Your task to perform on an android device: Go to Wikipedia Image 0: 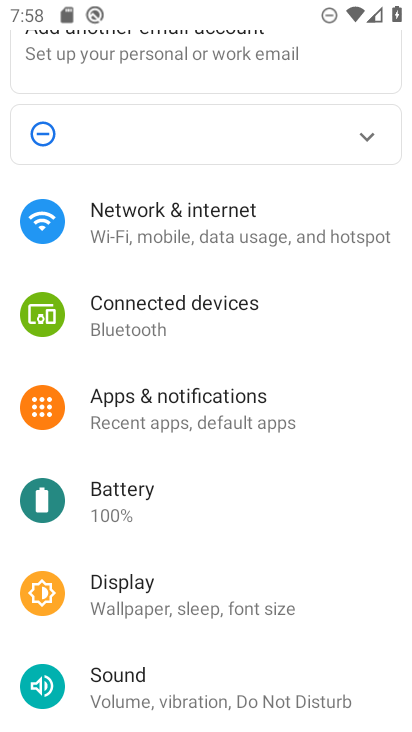
Step 0: press home button
Your task to perform on an android device: Go to Wikipedia Image 1: 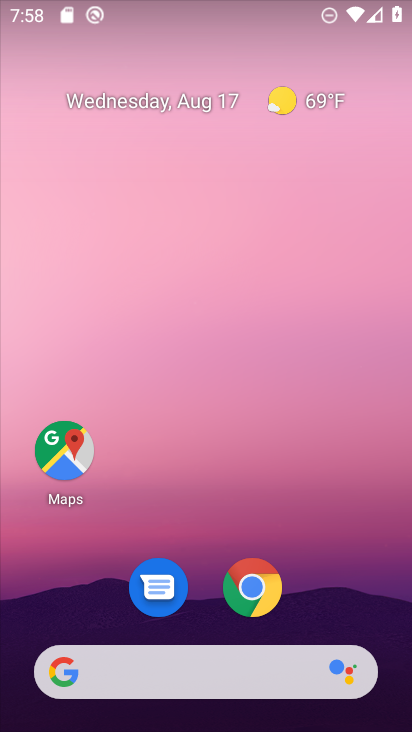
Step 1: click (113, 672)
Your task to perform on an android device: Go to Wikipedia Image 2: 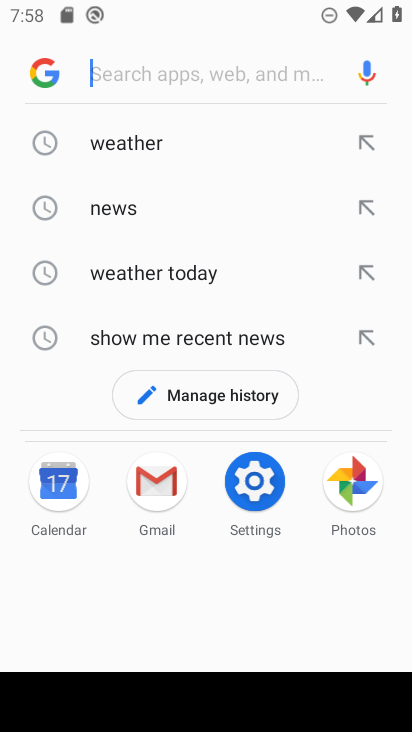
Step 2: type "Wikipedia"
Your task to perform on an android device: Go to Wikipedia Image 3: 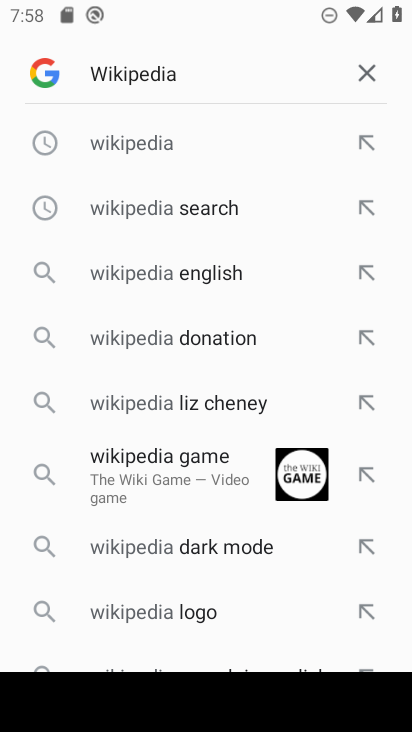
Step 3: click (170, 143)
Your task to perform on an android device: Go to Wikipedia Image 4: 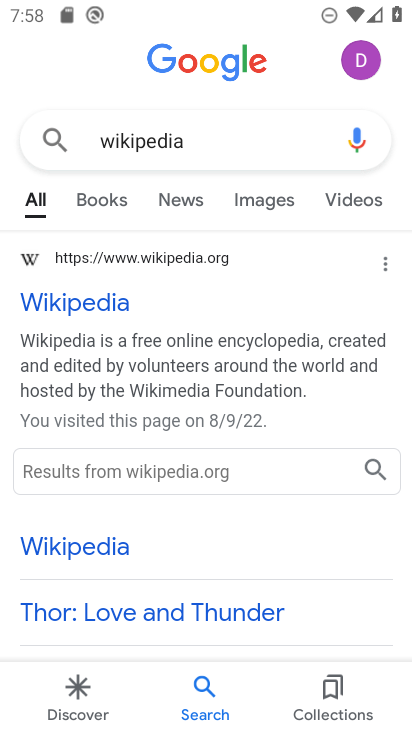
Step 4: task complete